Your task to perform on an android device: Open network settings Image 0: 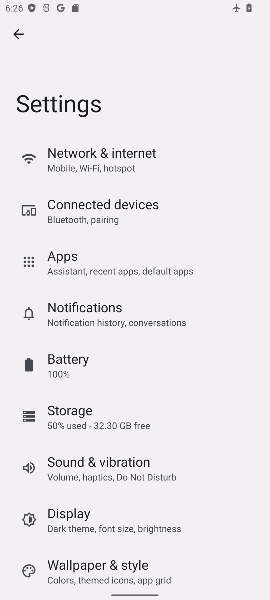
Step 0: click (81, 153)
Your task to perform on an android device: Open network settings Image 1: 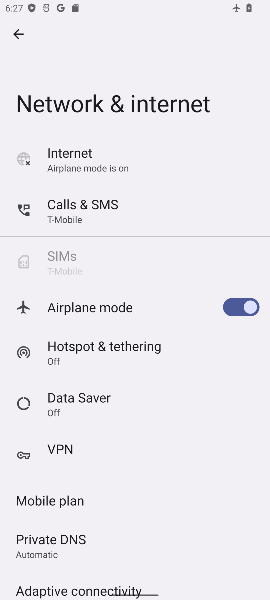
Step 1: task complete